Your task to perform on an android device: Find coffee shops on Maps Image 0: 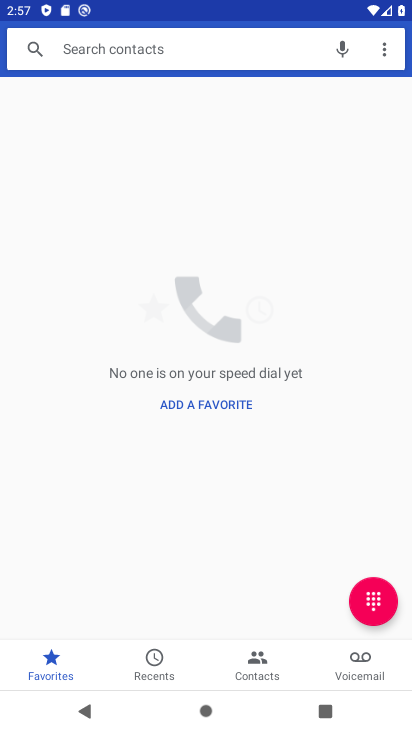
Step 0: press home button
Your task to perform on an android device: Find coffee shops on Maps Image 1: 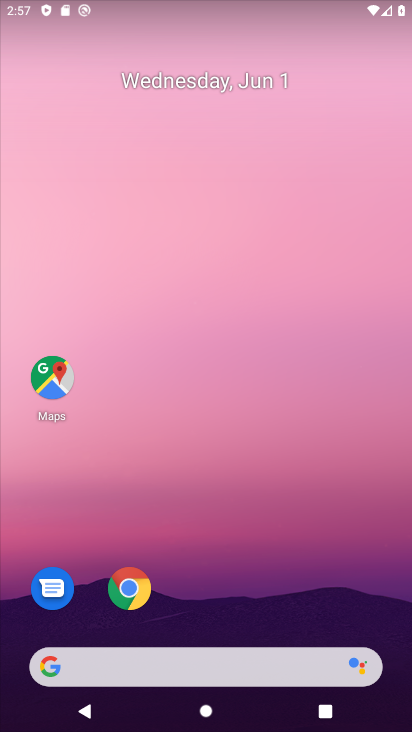
Step 1: click (40, 381)
Your task to perform on an android device: Find coffee shops on Maps Image 2: 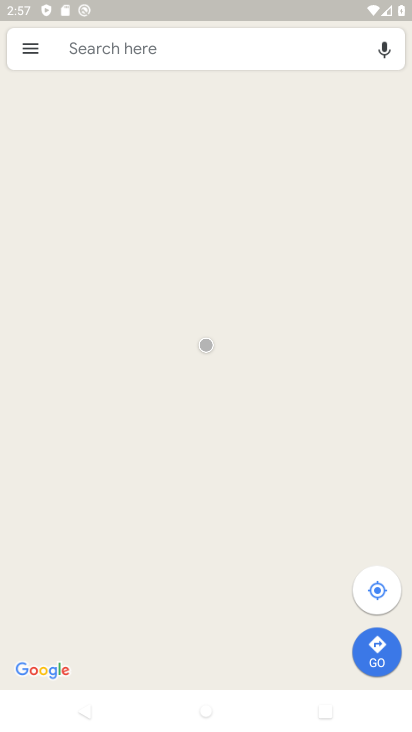
Step 2: click (134, 50)
Your task to perform on an android device: Find coffee shops on Maps Image 3: 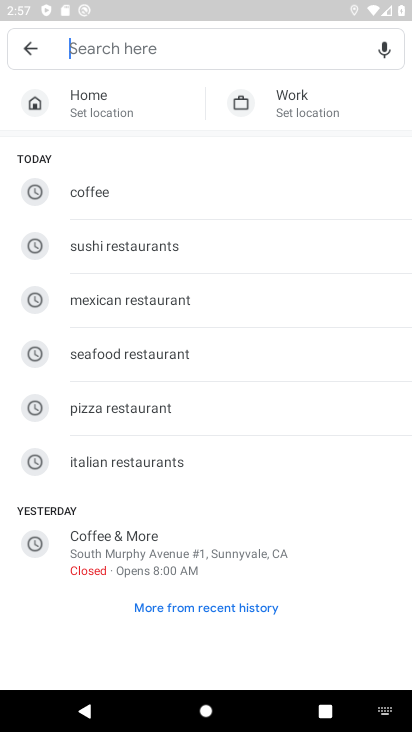
Step 3: type "Coffee shops"
Your task to perform on an android device: Find coffee shops on Maps Image 4: 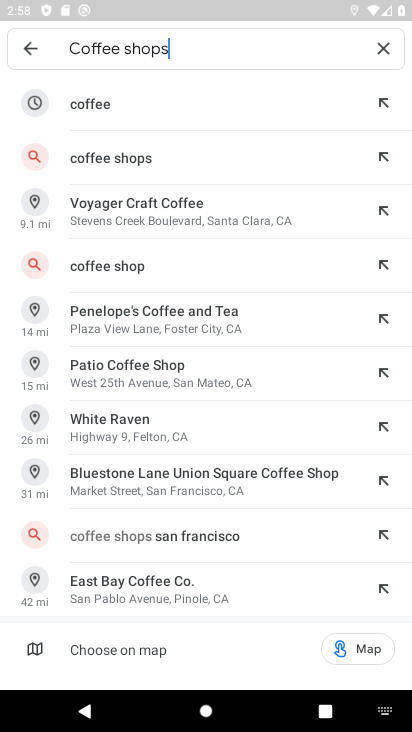
Step 4: click (213, 156)
Your task to perform on an android device: Find coffee shops on Maps Image 5: 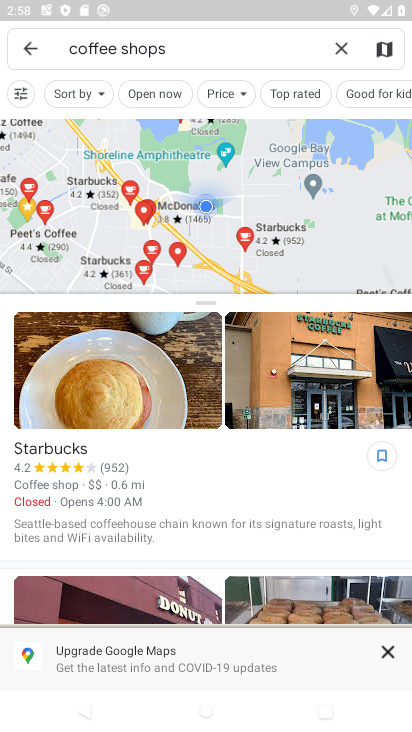
Step 5: task complete